Your task to perform on an android device: allow notifications from all sites in the chrome app Image 0: 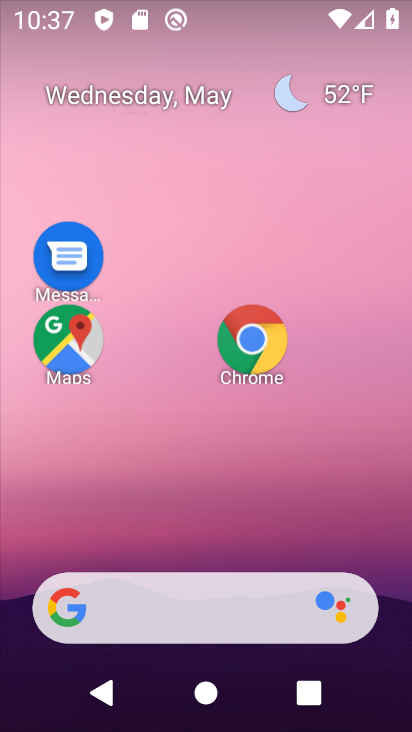
Step 0: click (260, 344)
Your task to perform on an android device: allow notifications from all sites in the chrome app Image 1: 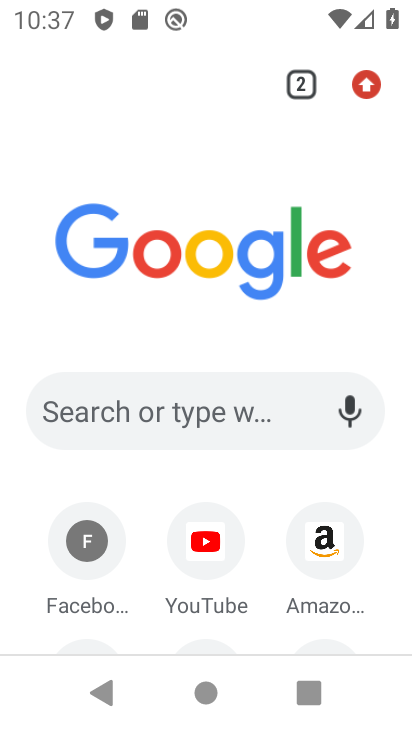
Step 1: click (359, 82)
Your task to perform on an android device: allow notifications from all sites in the chrome app Image 2: 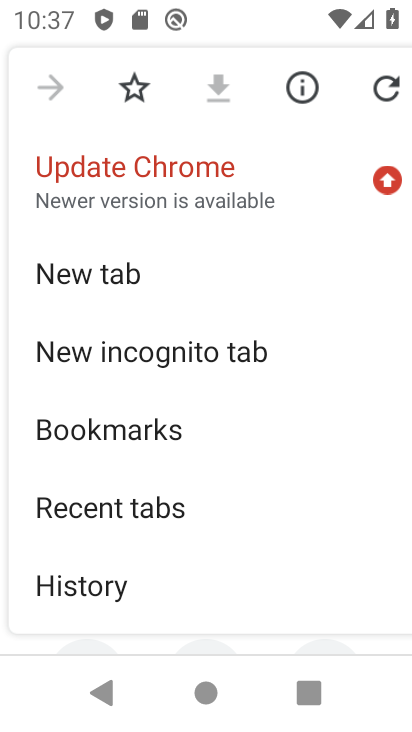
Step 2: drag from (243, 578) to (267, 201)
Your task to perform on an android device: allow notifications from all sites in the chrome app Image 3: 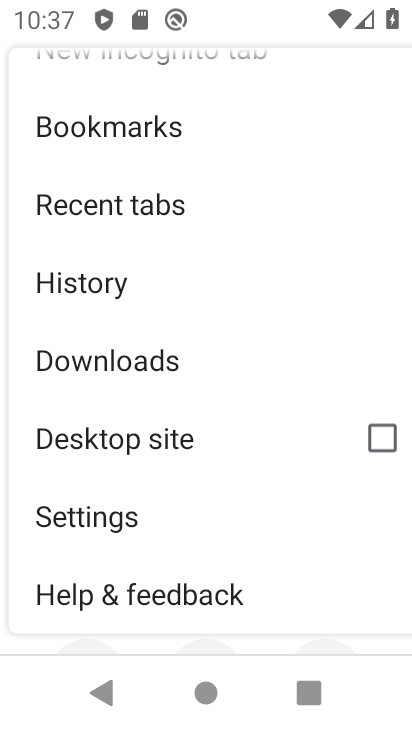
Step 3: drag from (296, 533) to (267, 274)
Your task to perform on an android device: allow notifications from all sites in the chrome app Image 4: 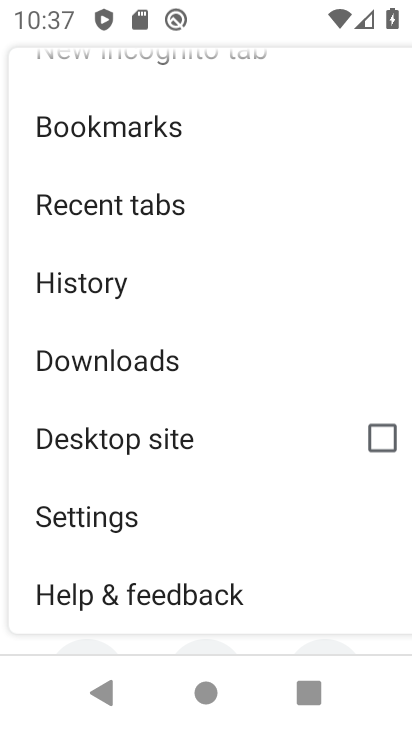
Step 4: click (180, 499)
Your task to perform on an android device: allow notifications from all sites in the chrome app Image 5: 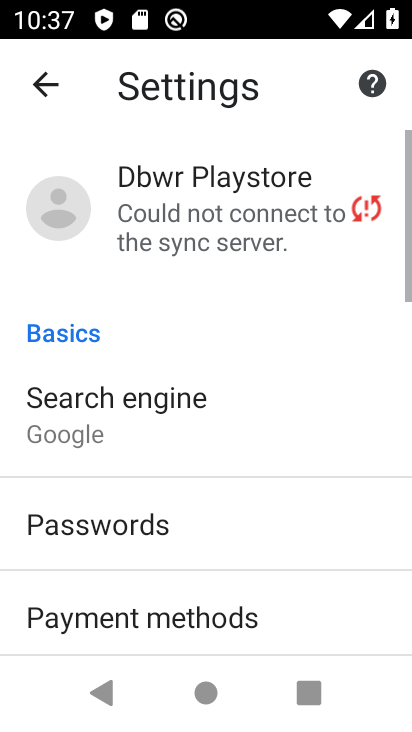
Step 5: drag from (268, 599) to (276, 87)
Your task to perform on an android device: allow notifications from all sites in the chrome app Image 6: 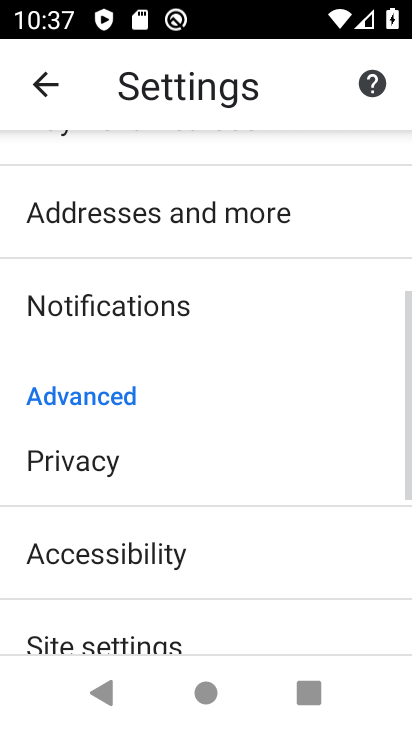
Step 6: drag from (200, 595) to (198, 280)
Your task to perform on an android device: allow notifications from all sites in the chrome app Image 7: 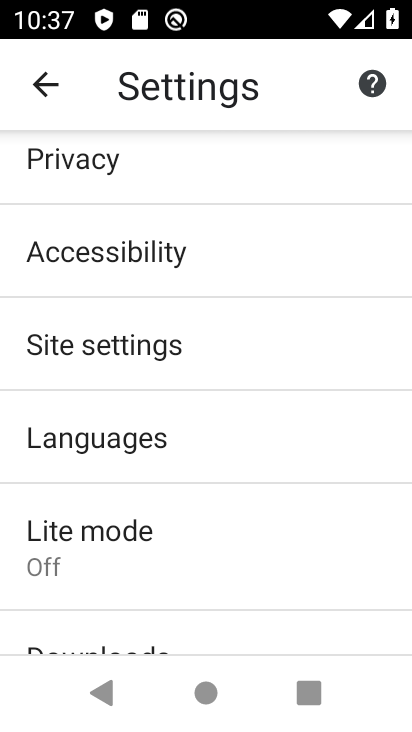
Step 7: click (170, 343)
Your task to perform on an android device: allow notifications from all sites in the chrome app Image 8: 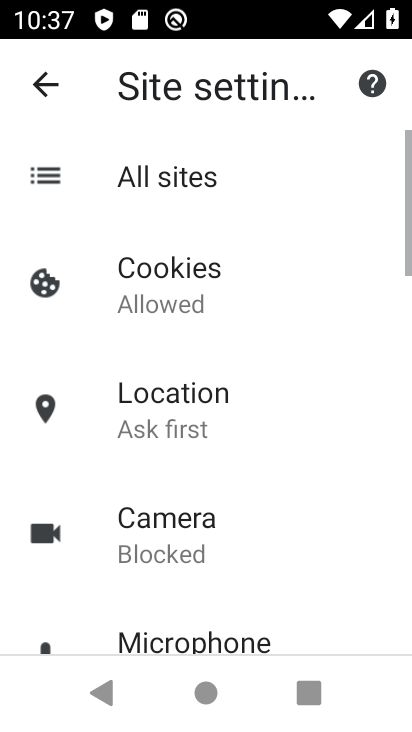
Step 8: drag from (282, 551) to (278, 154)
Your task to perform on an android device: allow notifications from all sites in the chrome app Image 9: 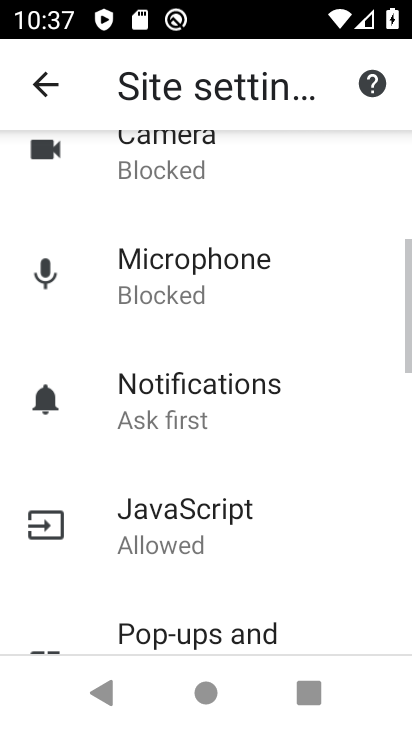
Step 9: drag from (272, 506) to (279, 649)
Your task to perform on an android device: allow notifications from all sites in the chrome app Image 10: 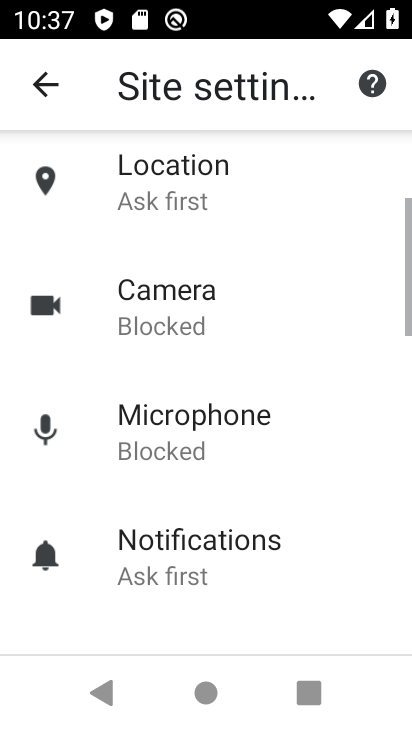
Step 10: drag from (214, 300) to (220, 92)
Your task to perform on an android device: allow notifications from all sites in the chrome app Image 11: 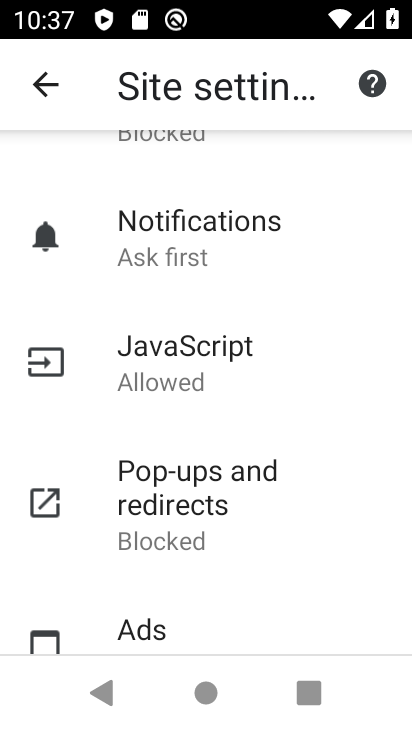
Step 11: click (185, 215)
Your task to perform on an android device: allow notifications from all sites in the chrome app Image 12: 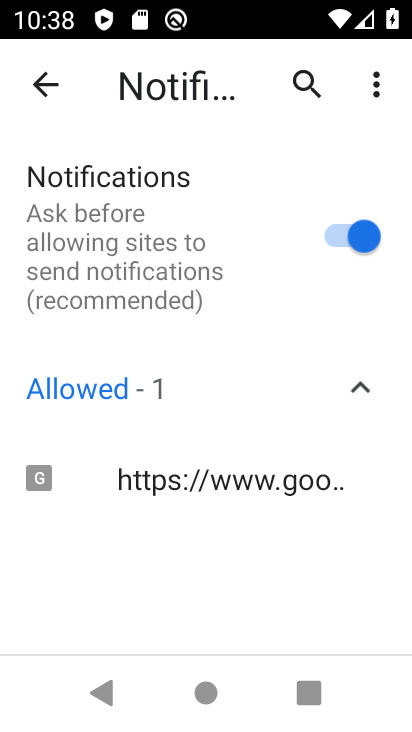
Step 12: task complete